Your task to perform on an android device: Go to calendar. Show me events next week Image 0: 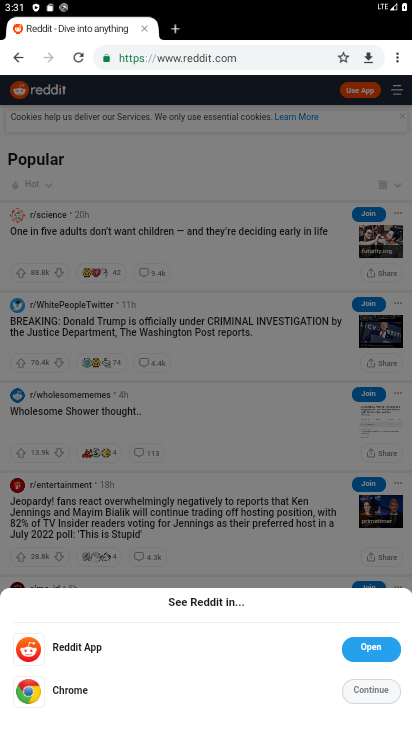
Step 0: press home button
Your task to perform on an android device: Go to calendar. Show me events next week Image 1: 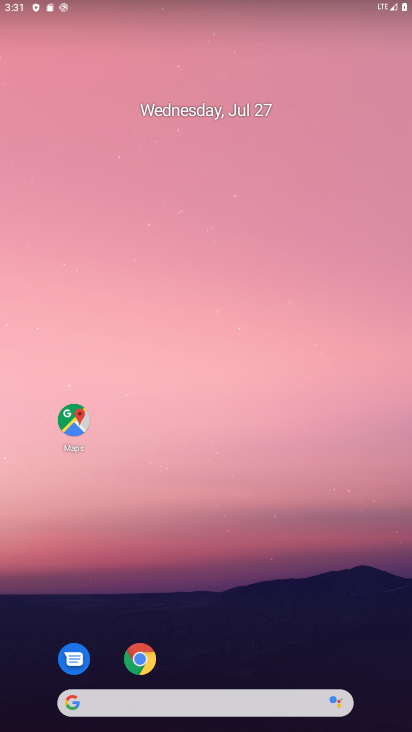
Step 1: drag from (221, 670) to (177, 196)
Your task to perform on an android device: Go to calendar. Show me events next week Image 2: 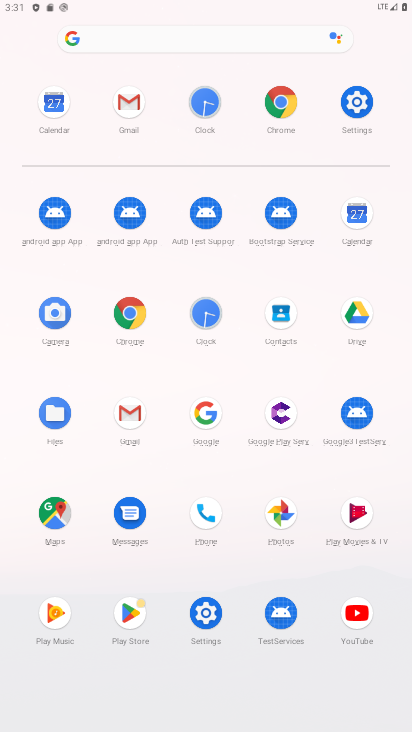
Step 2: click (359, 205)
Your task to perform on an android device: Go to calendar. Show me events next week Image 3: 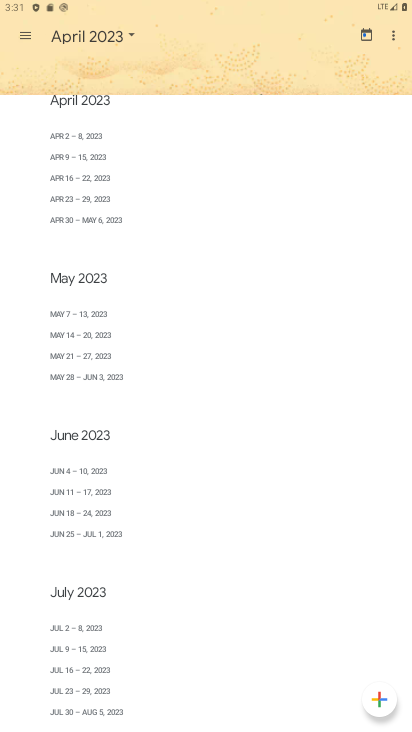
Step 3: click (371, 32)
Your task to perform on an android device: Go to calendar. Show me events next week Image 4: 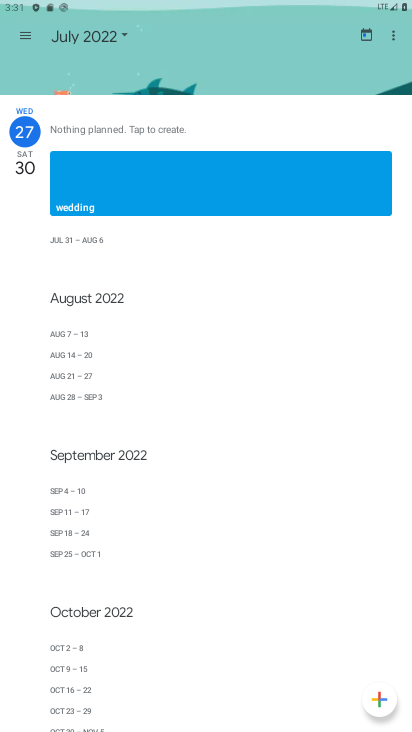
Step 4: click (30, 38)
Your task to perform on an android device: Go to calendar. Show me events next week Image 5: 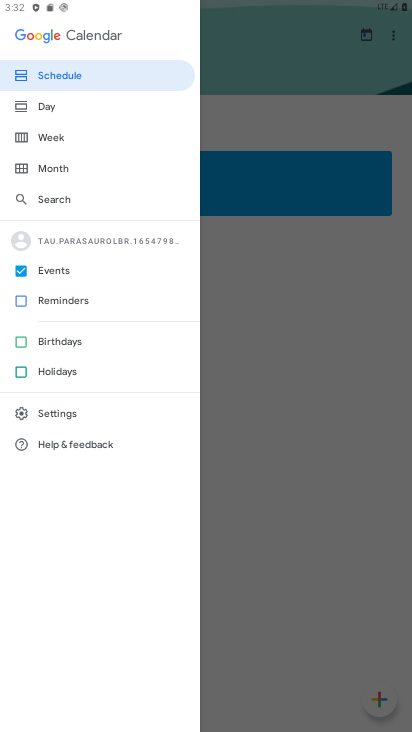
Step 5: click (49, 140)
Your task to perform on an android device: Go to calendar. Show me events next week Image 6: 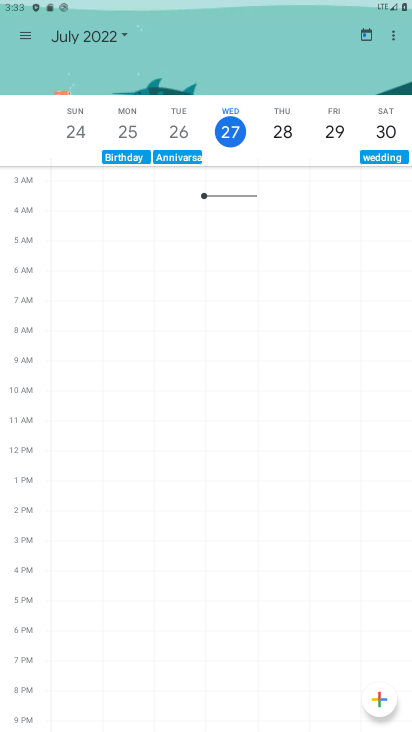
Step 6: drag from (296, 404) to (2, 159)
Your task to perform on an android device: Go to calendar. Show me events next week Image 7: 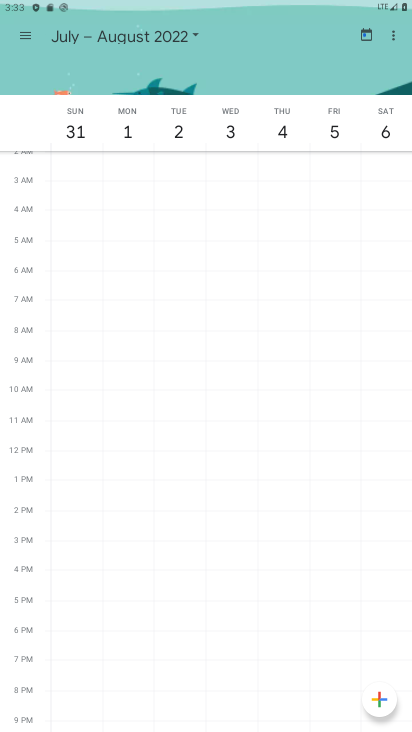
Step 7: click (33, 36)
Your task to perform on an android device: Go to calendar. Show me events next week Image 8: 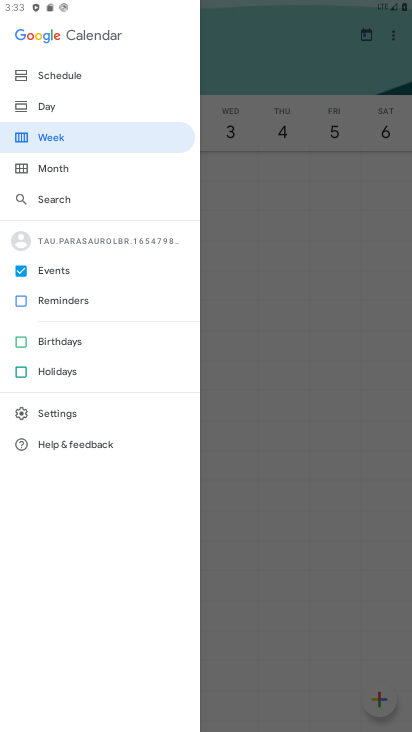
Step 8: click (60, 136)
Your task to perform on an android device: Go to calendar. Show me events next week Image 9: 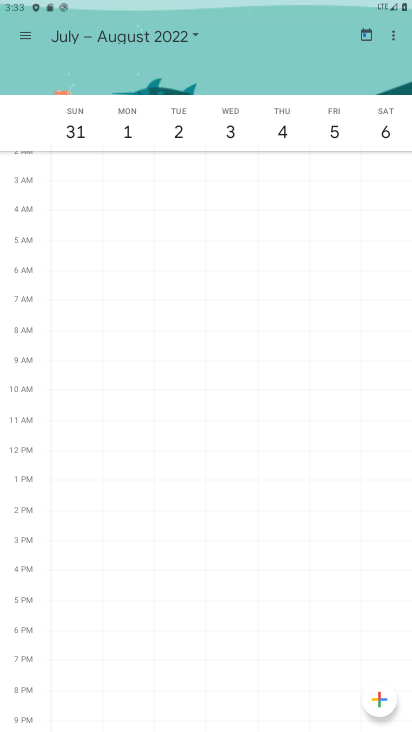
Step 9: task complete